Your task to perform on an android device: Open battery settings Image 0: 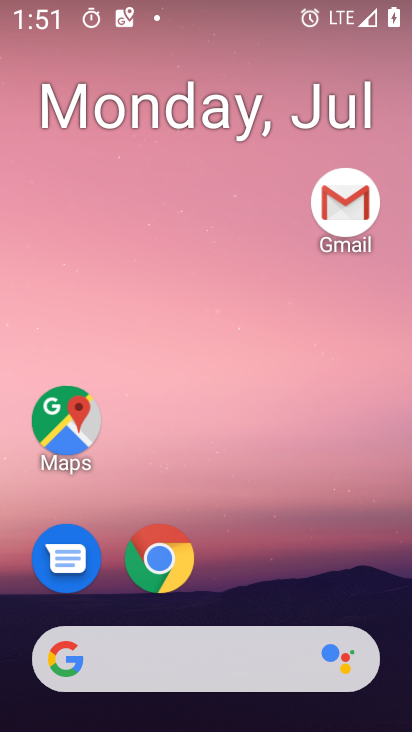
Step 0: drag from (334, 555) to (359, 221)
Your task to perform on an android device: Open battery settings Image 1: 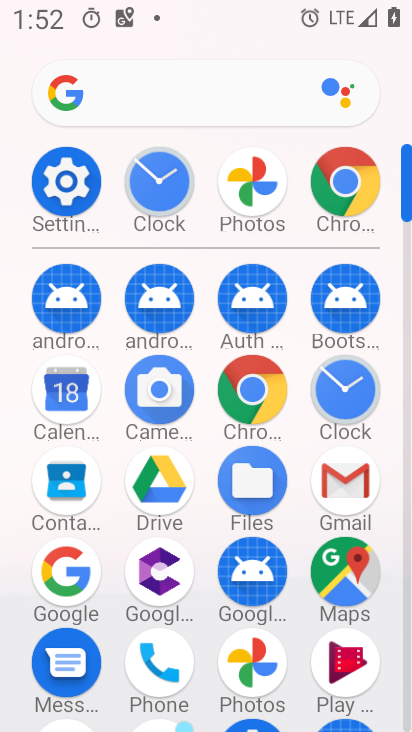
Step 1: click (82, 196)
Your task to perform on an android device: Open battery settings Image 2: 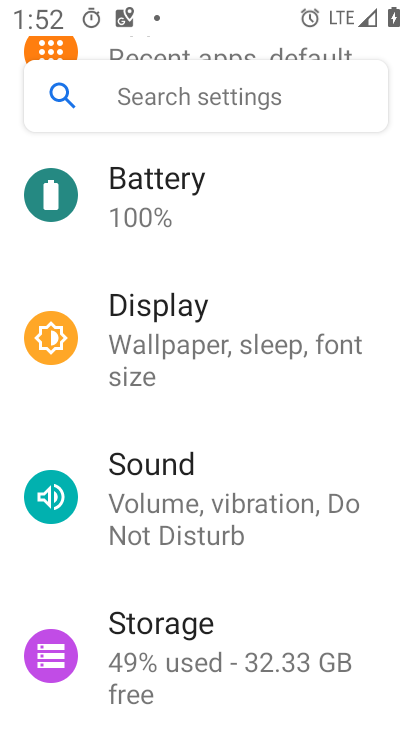
Step 2: drag from (376, 580) to (371, 485)
Your task to perform on an android device: Open battery settings Image 3: 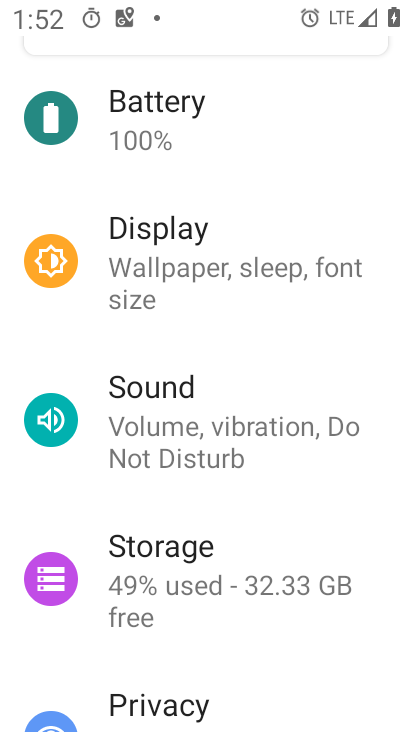
Step 3: drag from (373, 622) to (371, 454)
Your task to perform on an android device: Open battery settings Image 4: 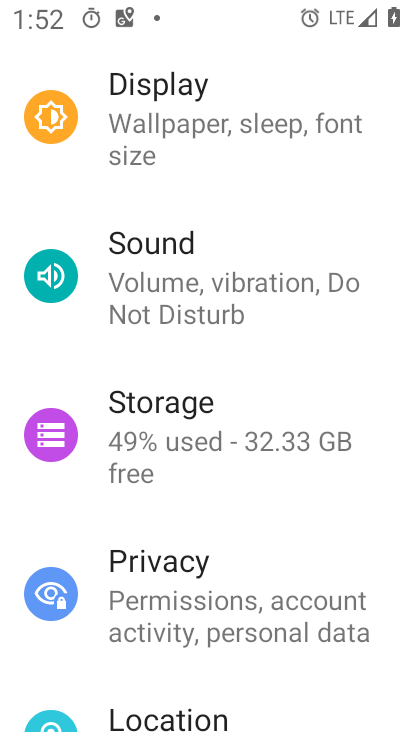
Step 4: drag from (363, 648) to (362, 559)
Your task to perform on an android device: Open battery settings Image 5: 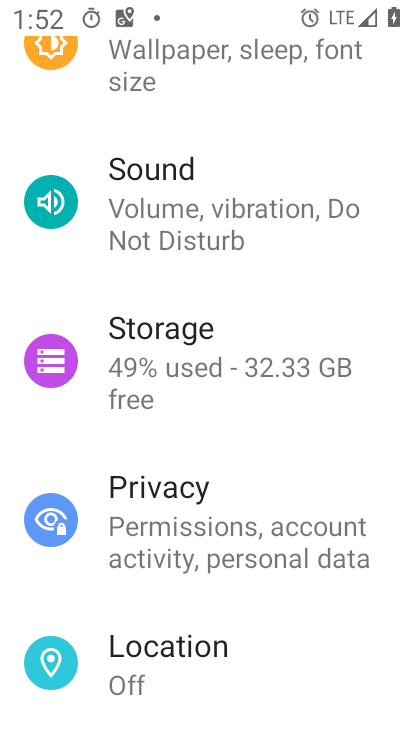
Step 5: drag from (345, 664) to (345, 549)
Your task to perform on an android device: Open battery settings Image 6: 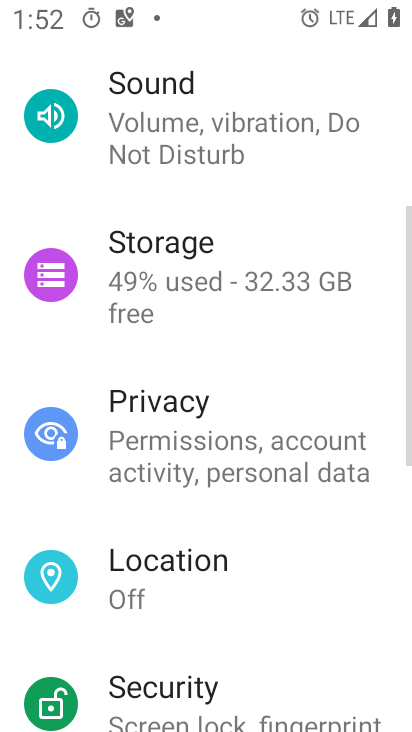
Step 6: drag from (330, 639) to (330, 516)
Your task to perform on an android device: Open battery settings Image 7: 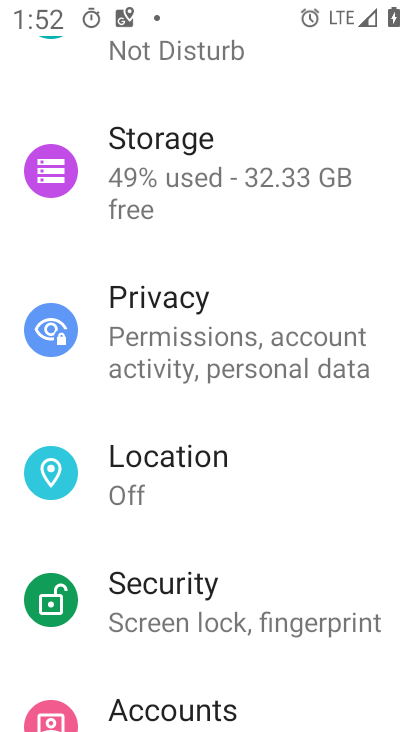
Step 7: drag from (327, 667) to (330, 516)
Your task to perform on an android device: Open battery settings Image 8: 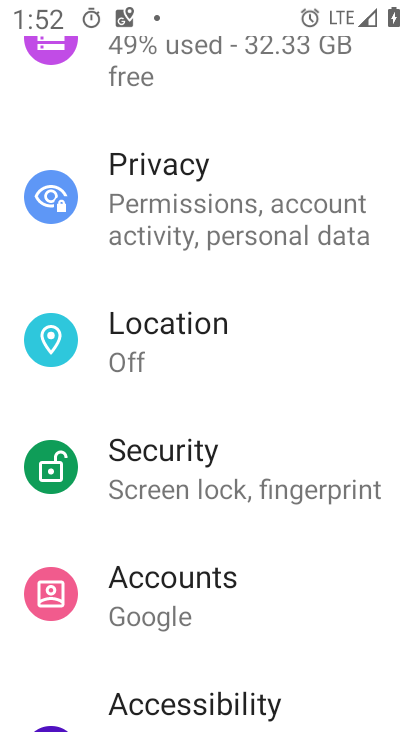
Step 8: drag from (330, 633) to (329, 484)
Your task to perform on an android device: Open battery settings Image 9: 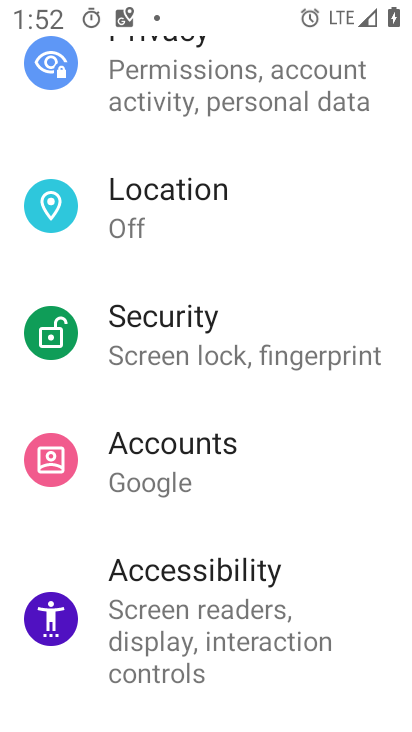
Step 9: drag from (348, 633) to (349, 464)
Your task to perform on an android device: Open battery settings Image 10: 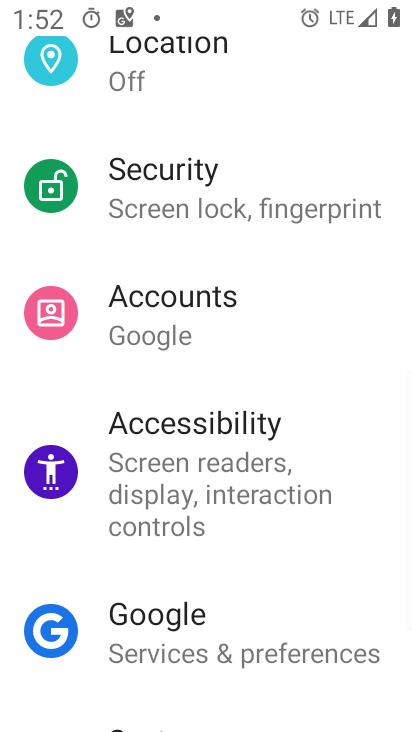
Step 10: drag from (352, 603) to (355, 454)
Your task to perform on an android device: Open battery settings Image 11: 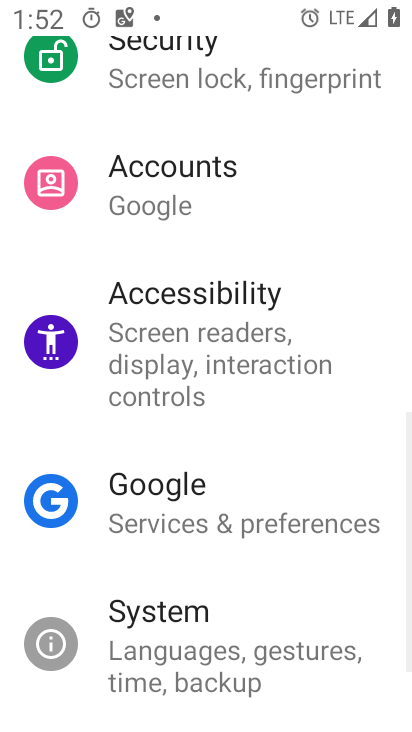
Step 11: drag from (367, 363) to (372, 469)
Your task to perform on an android device: Open battery settings Image 12: 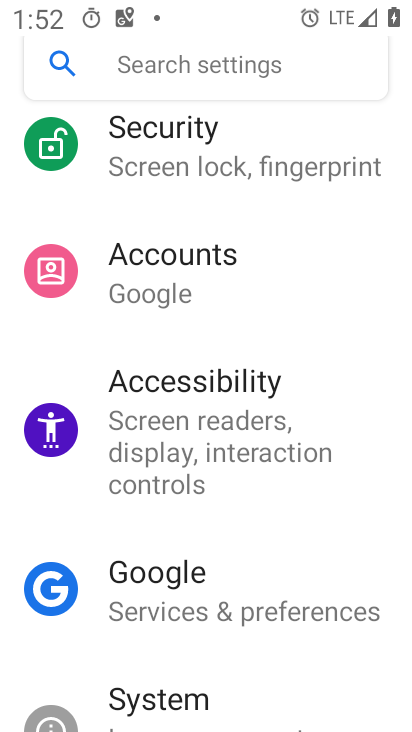
Step 12: drag from (376, 344) to (381, 452)
Your task to perform on an android device: Open battery settings Image 13: 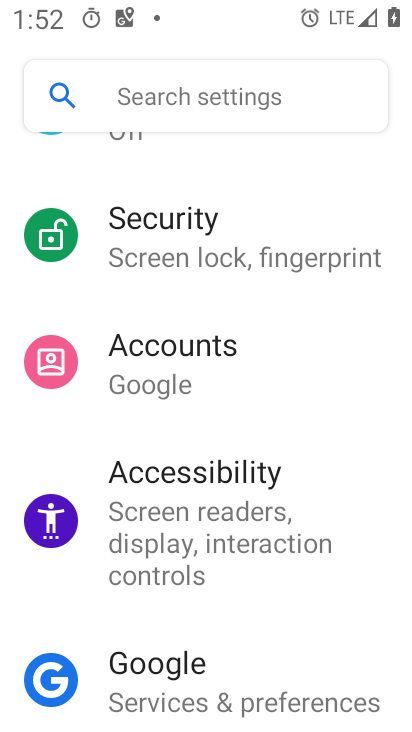
Step 13: drag from (364, 334) to (363, 446)
Your task to perform on an android device: Open battery settings Image 14: 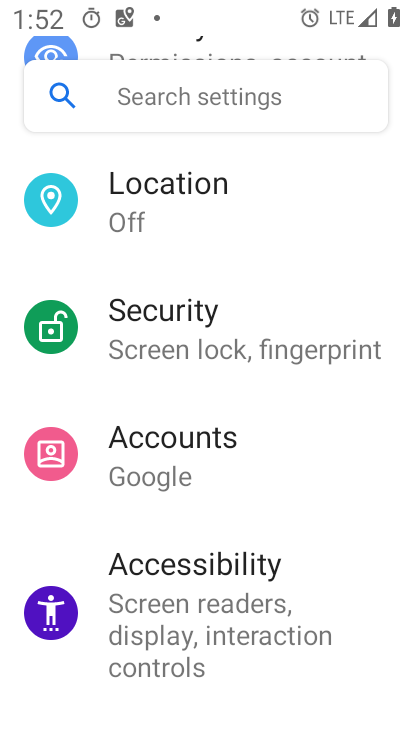
Step 14: drag from (359, 369) to (361, 477)
Your task to perform on an android device: Open battery settings Image 15: 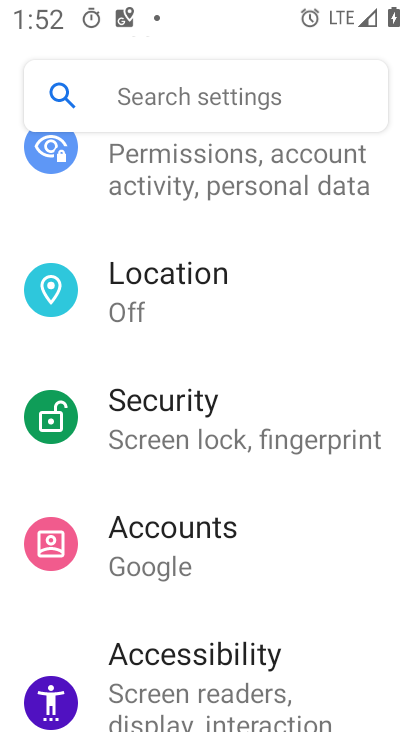
Step 15: drag from (347, 328) to (356, 437)
Your task to perform on an android device: Open battery settings Image 16: 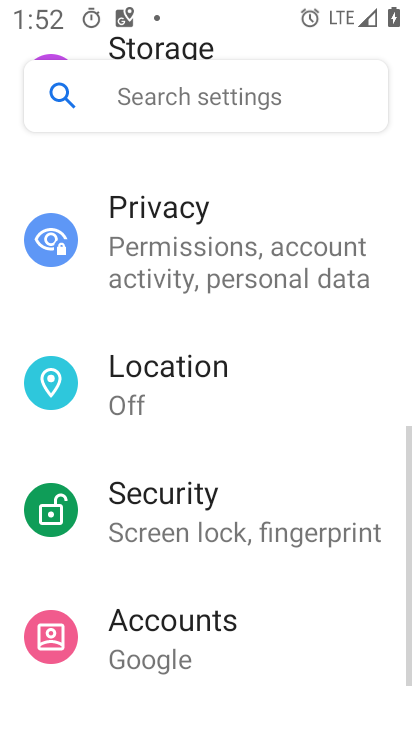
Step 16: drag from (357, 317) to (359, 450)
Your task to perform on an android device: Open battery settings Image 17: 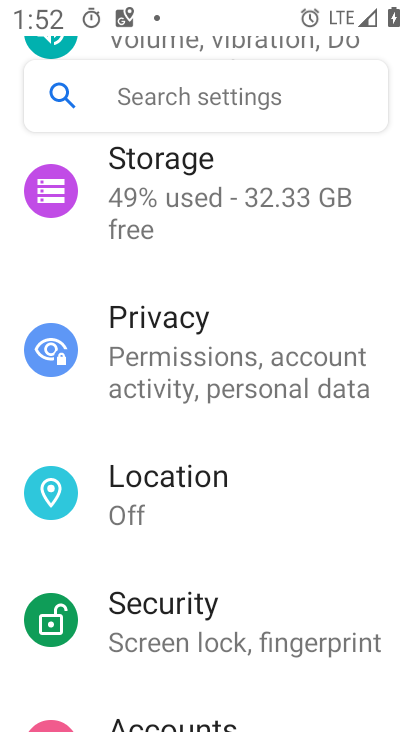
Step 17: drag from (359, 291) to (361, 430)
Your task to perform on an android device: Open battery settings Image 18: 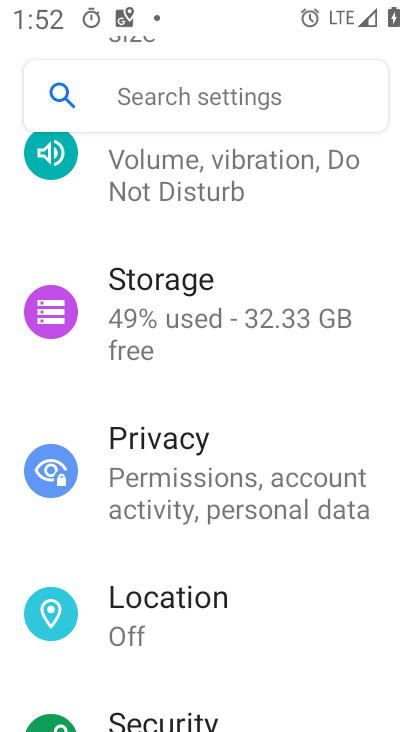
Step 18: drag from (361, 259) to (361, 409)
Your task to perform on an android device: Open battery settings Image 19: 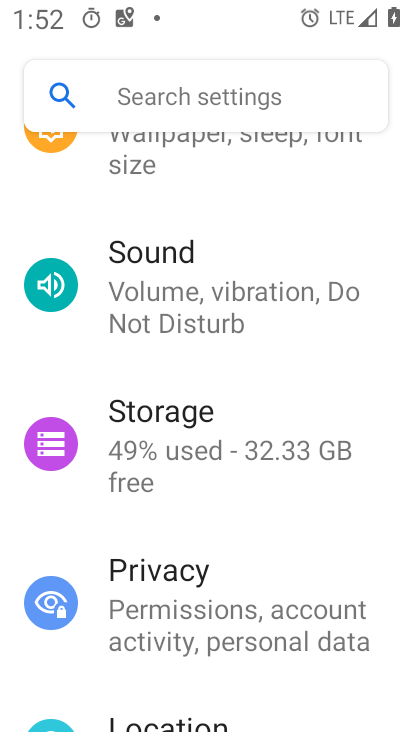
Step 19: drag from (357, 218) to (359, 386)
Your task to perform on an android device: Open battery settings Image 20: 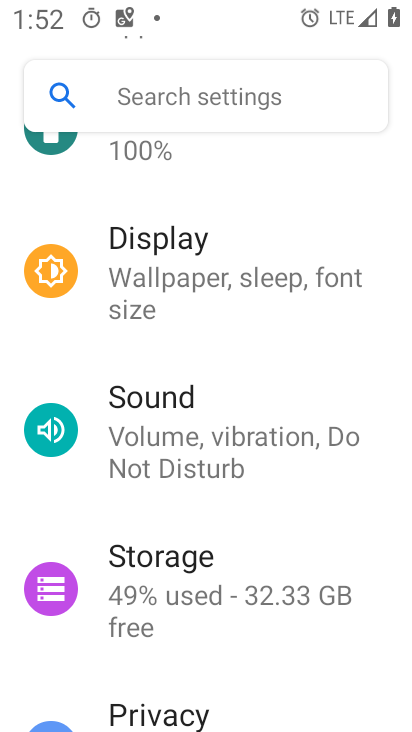
Step 20: drag from (359, 182) to (371, 360)
Your task to perform on an android device: Open battery settings Image 21: 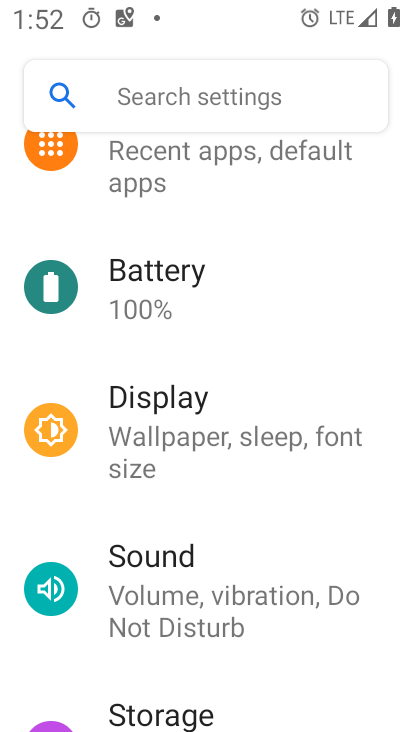
Step 21: click (293, 306)
Your task to perform on an android device: Open battery settings Image 22: 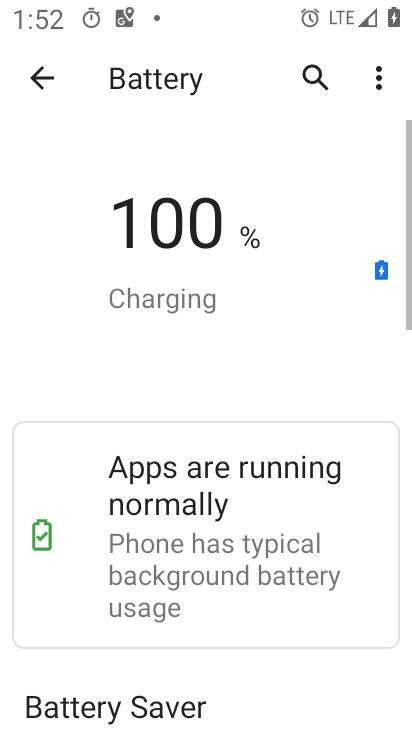
Step 22: task complete